Your task to perform on an android device: uninstall "Clock" Image 0: 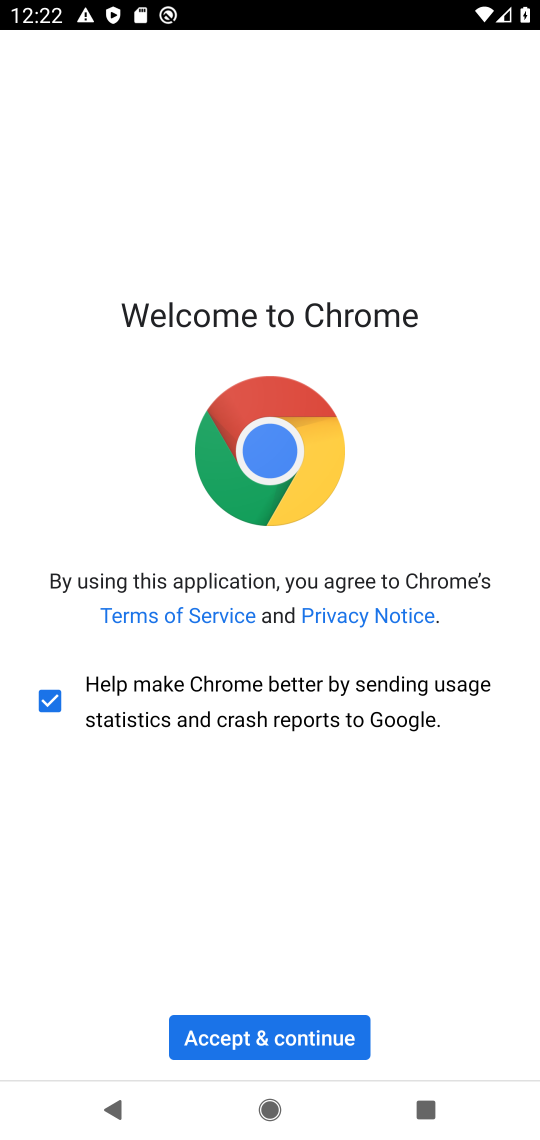
Step 0: press home button
Your task to perform on an android device: uninstall "Clock" Image 1: 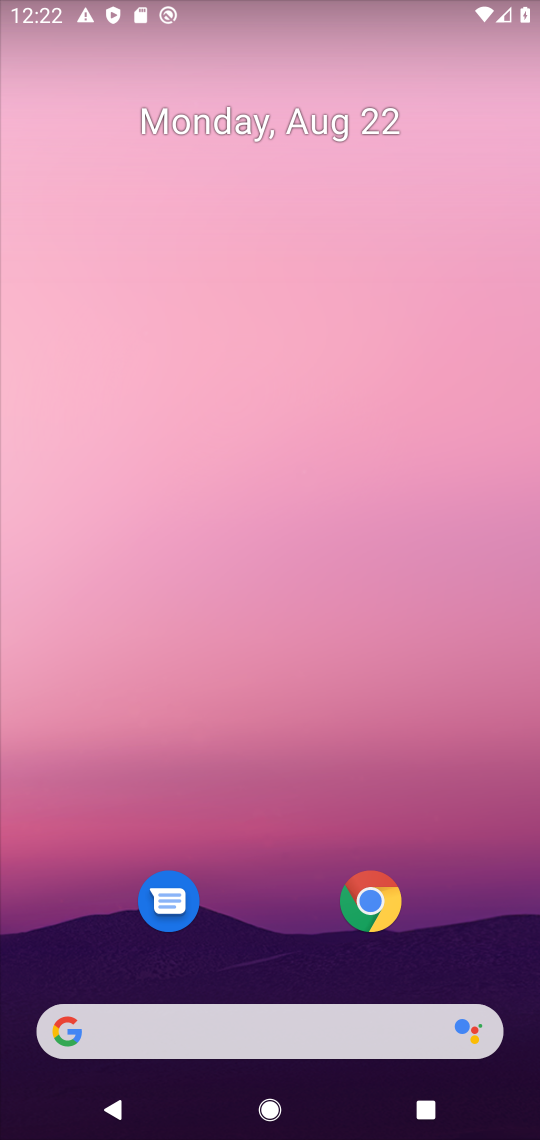
Step 1: drag from (323, 986) to (301, 126)
Your task to perform on an android device: uninstall "Clock" Image 2: 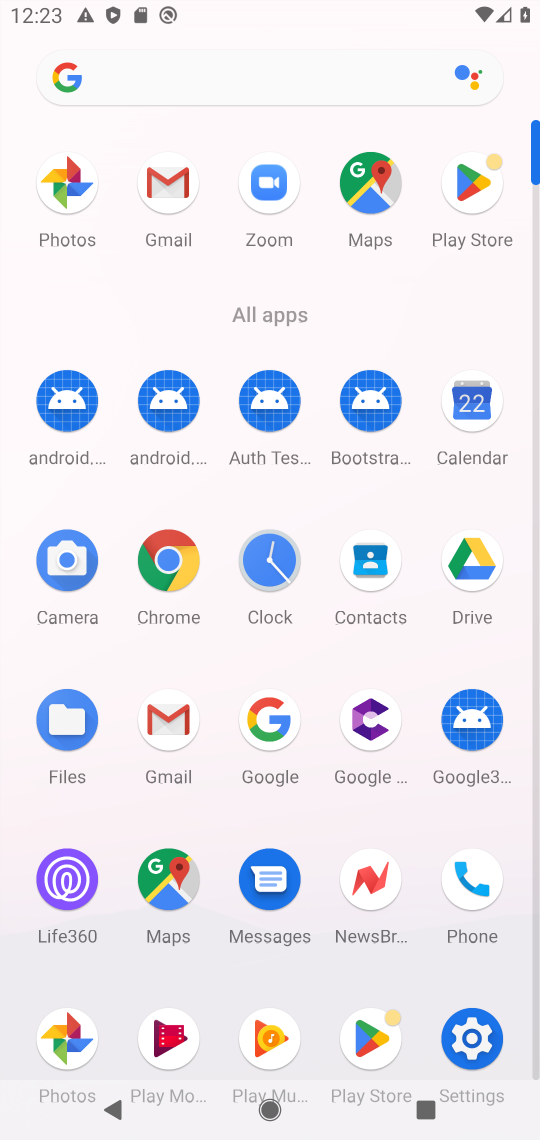
Step 2: click (472, 191)
Your task to perform on an android device: uninstall "Clock" Image 3: 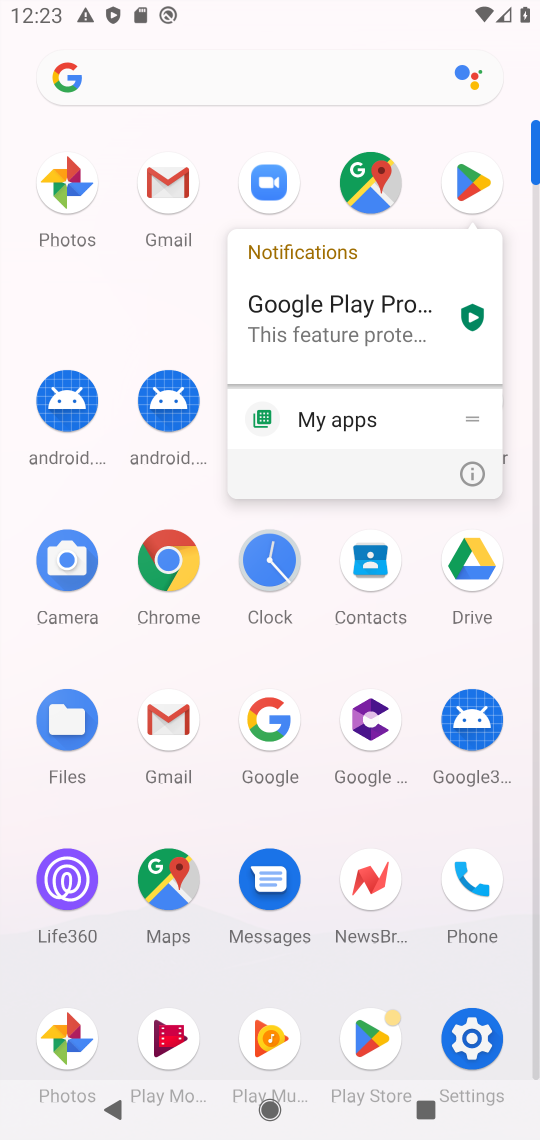
Step 3: click (472, 191)
Your task to perform on an android device: uninstall "Clock" Image 4: 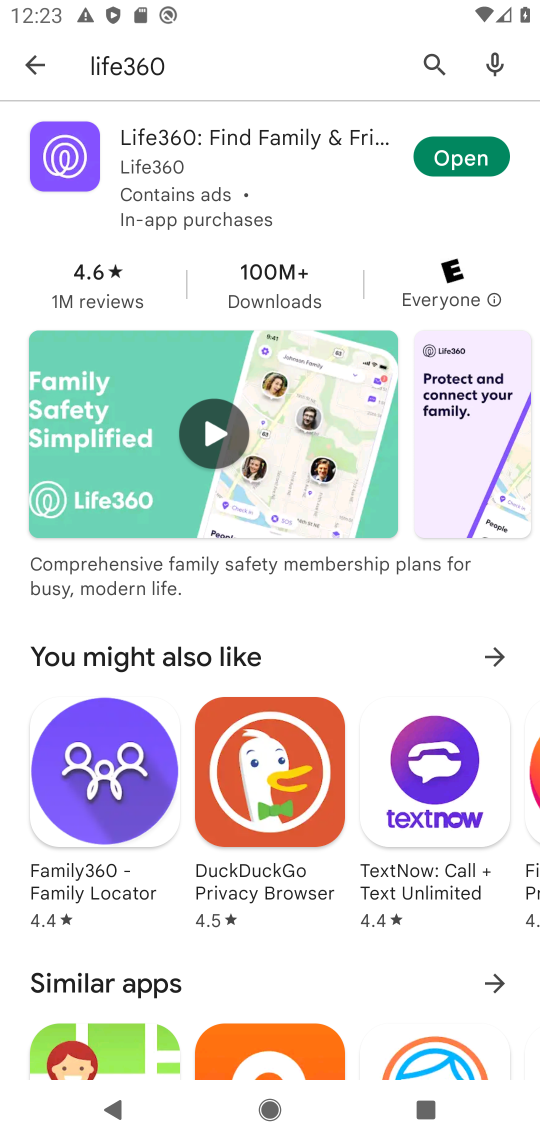
Step 4: click (443, 65)
Your task to perform on an android device: uninstall "Clock" Image 5: 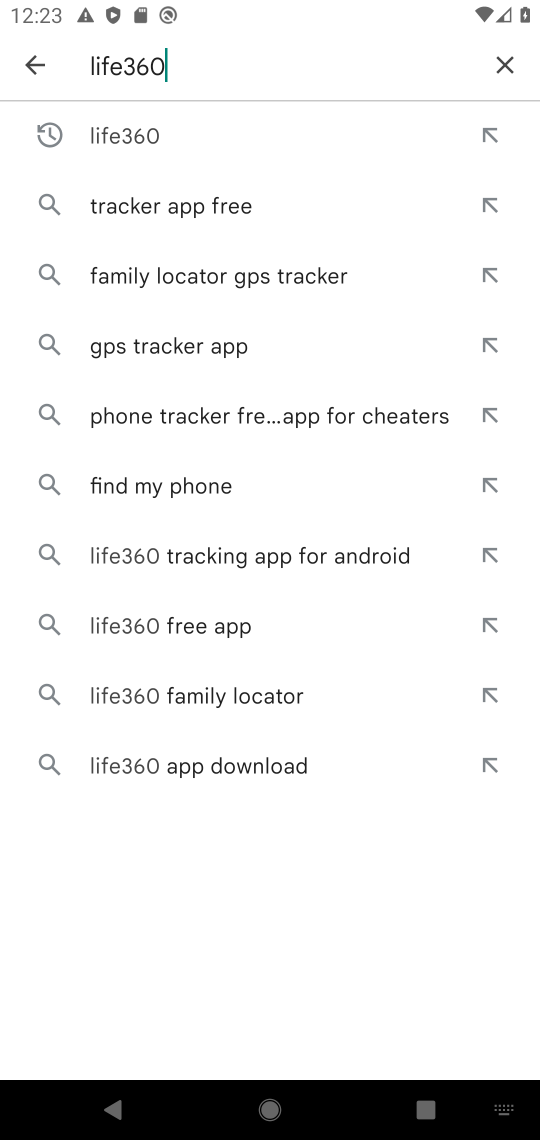
Step 5: click (513, 65)
Your task to perform on an android device: uninstall "Clock" Image 6: 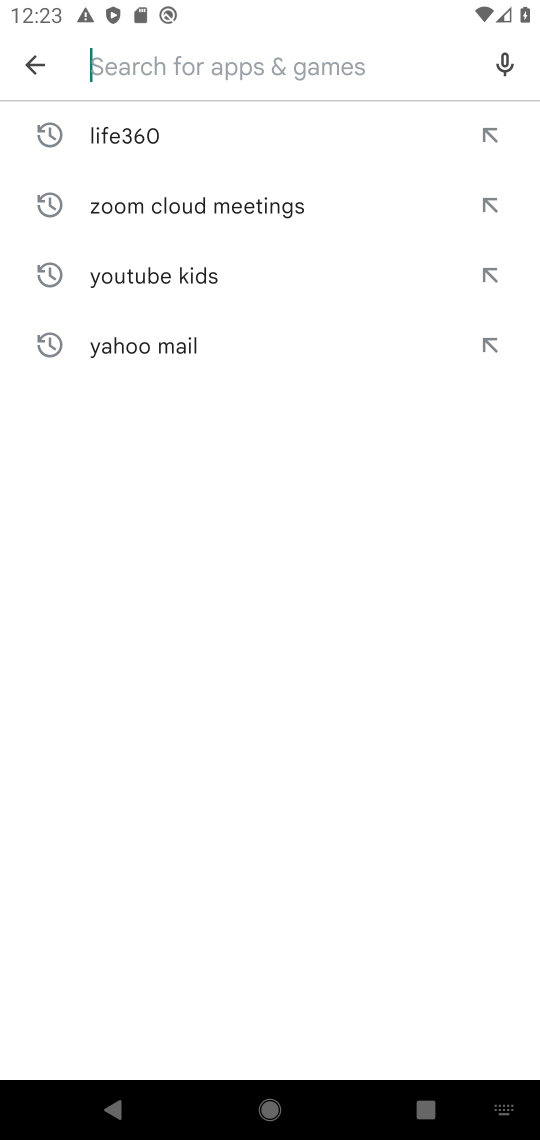
Step 6: type "clock"
Your task to perform on an android device: uninstall "Clock" Image 7: 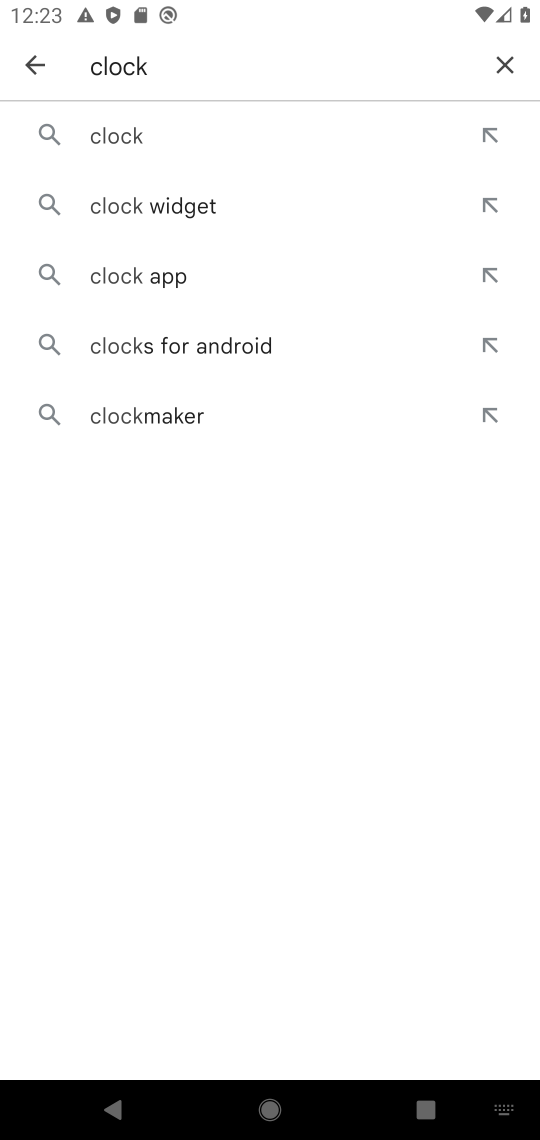
Step 7: click (135, 134)
Your task to perform on an android device: uninstall "Clock" Image 8: 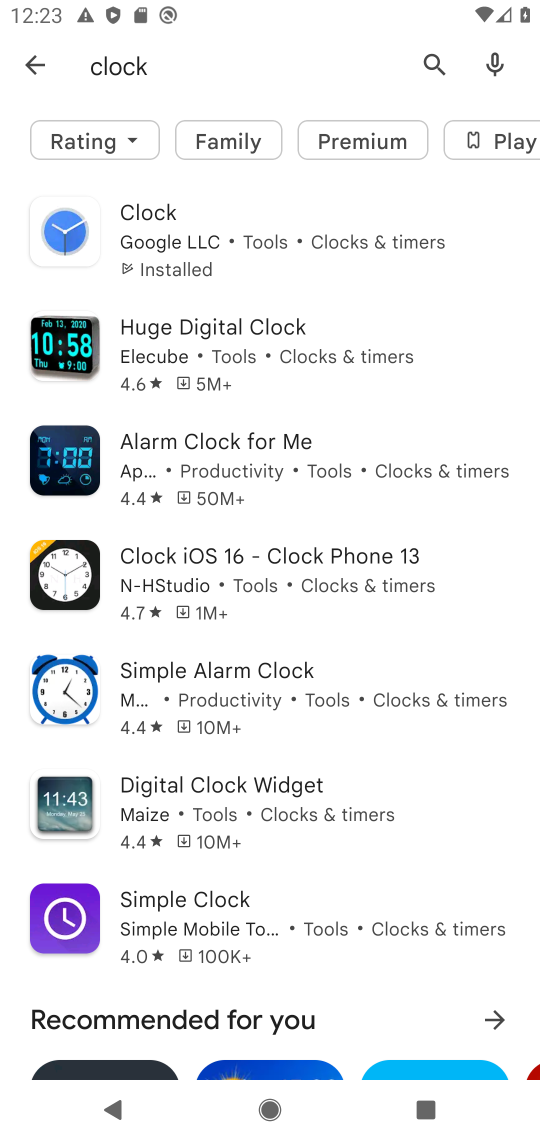
Step 8: click (181, 255)
Your task to perform on an android device: uninstall "Clock" Image 9: 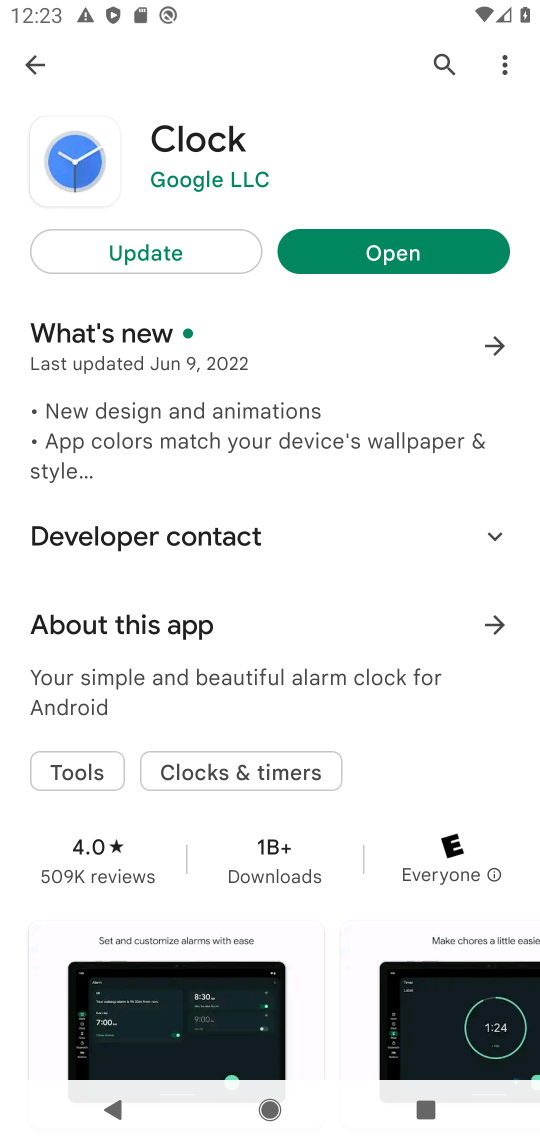
Step 9: task complete